Your task to perform on an android device: check storage Image 0: 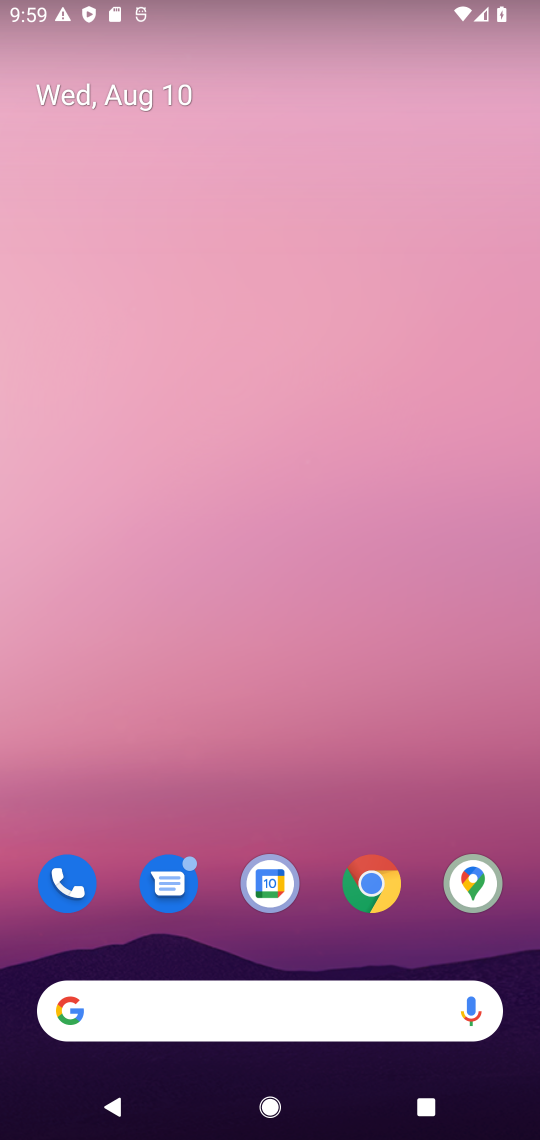
Step 0: drag from (261, 981) to (200, 15)
Your task to perform on an android device: check storage Image 1: 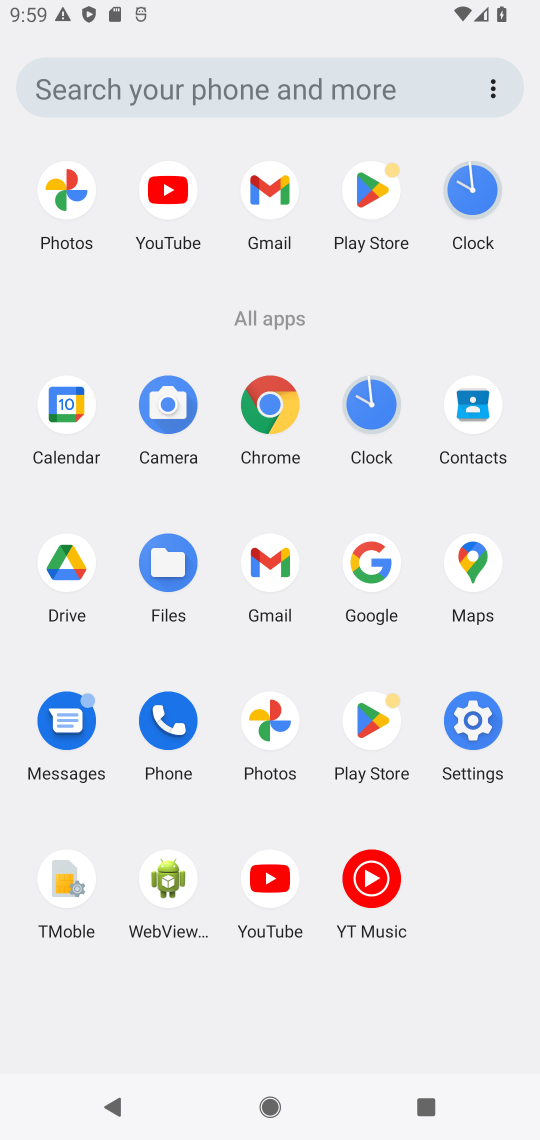
Step 1: click (489, 725)
Your task to perform on an android device: check storage Image 2: 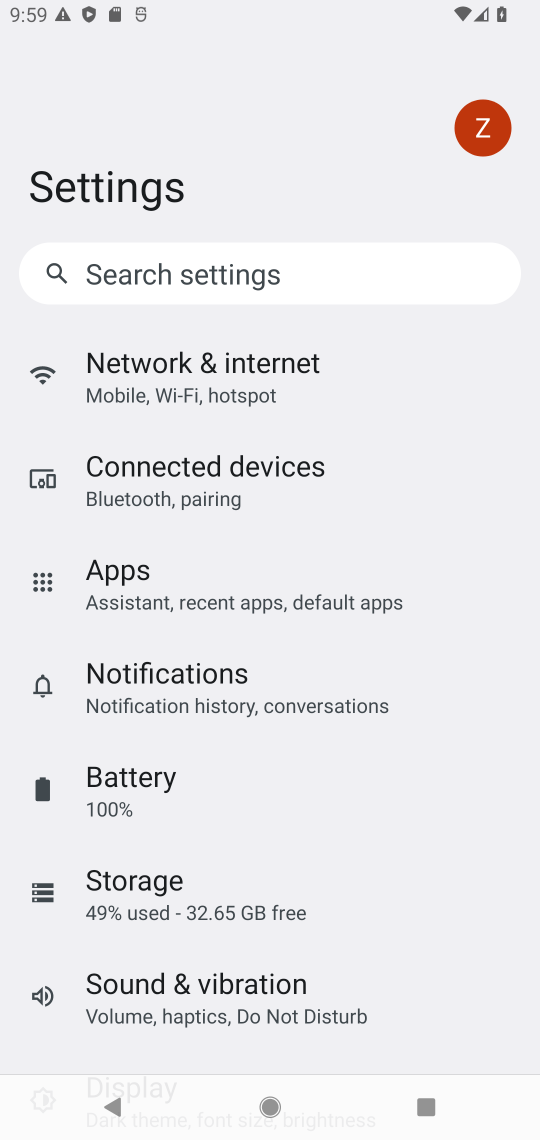
Step 2: click (113, 896)
Your task to perform on an android device: check storage Image 3: 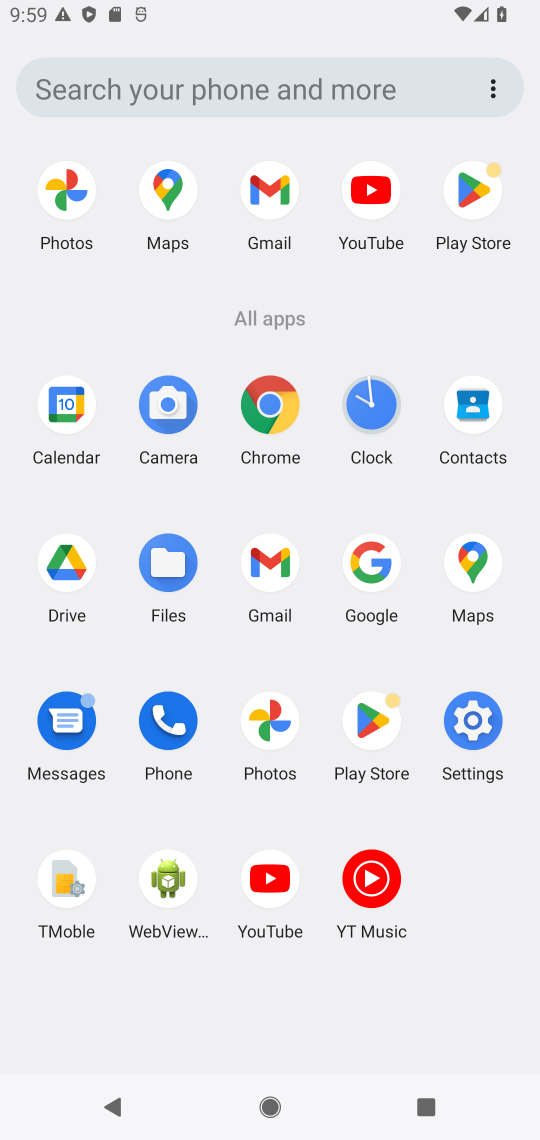
Step 3: click (470, 752)
Your task to perform on an android device: check storage Image 4: 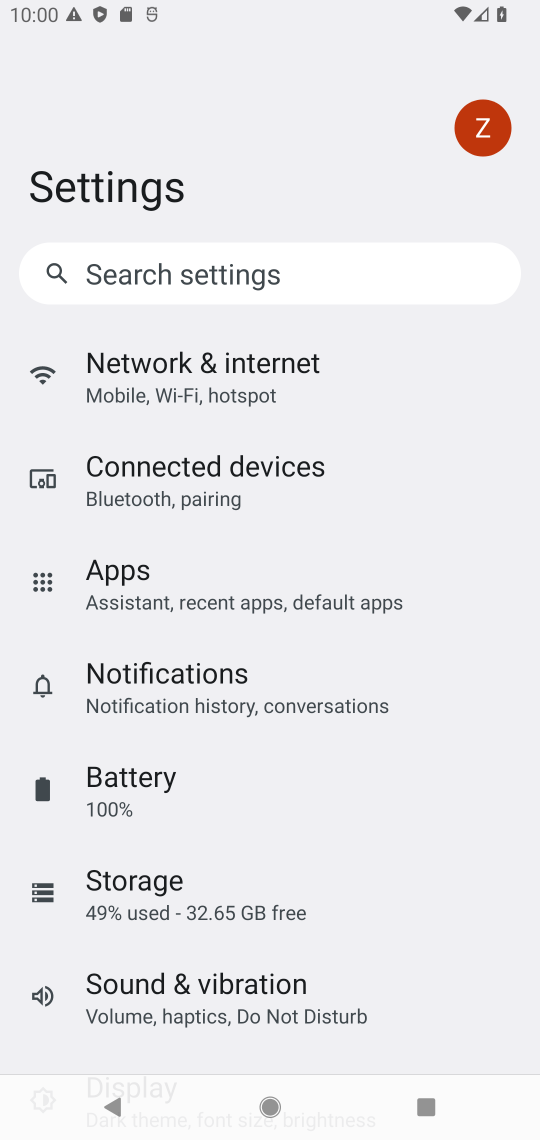
Step 4: click (296, 863)
Your task to perform on an android device: check storage Image 5: 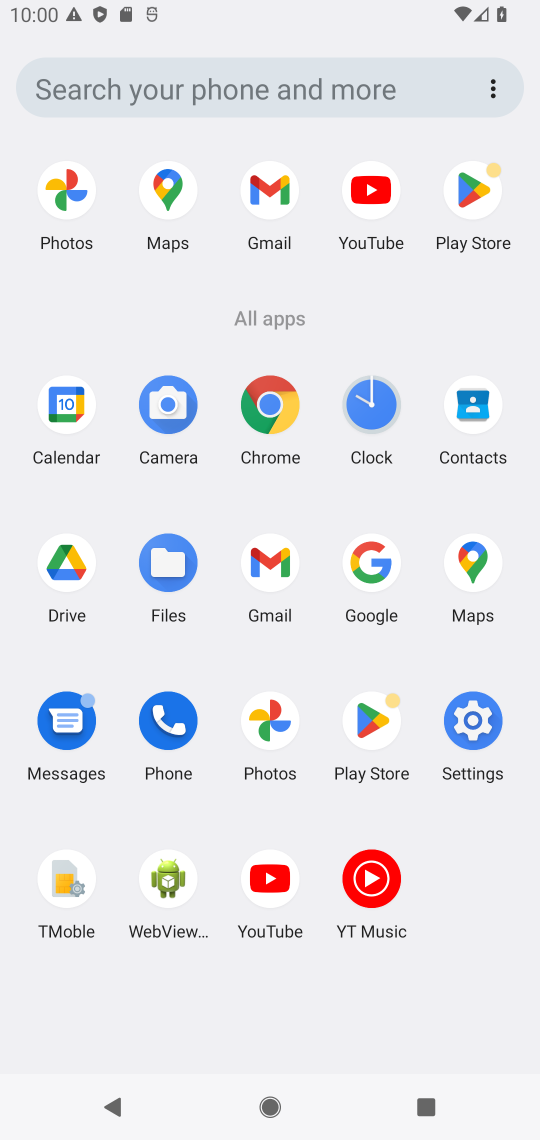
Step 5: click (486, 729)
Your task to perform on an android device: check storage Image 6: 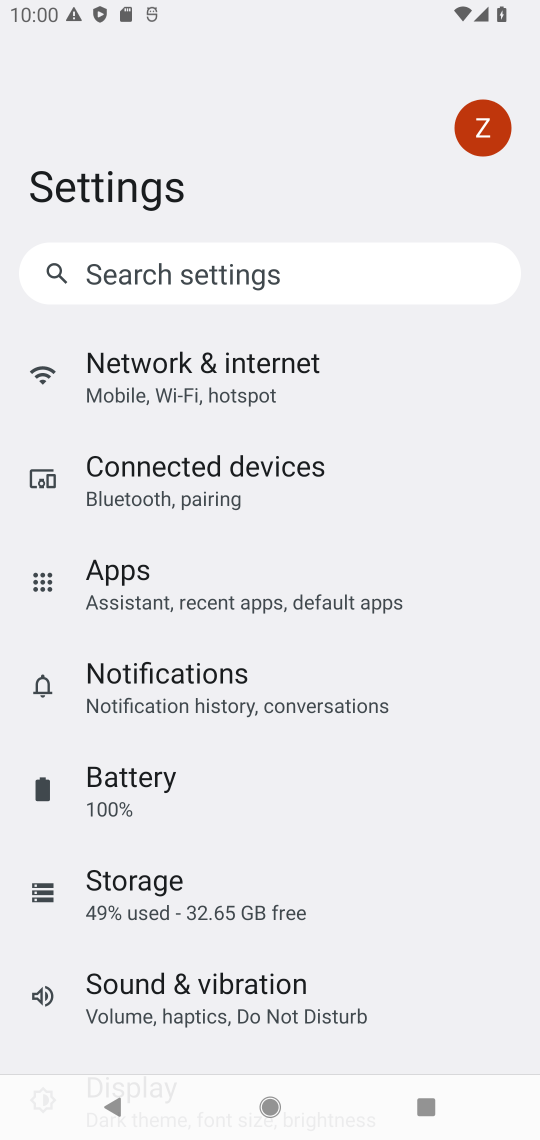
Step 6: click (137, 888)
Your task to perform on an android device: check storage Image 7: 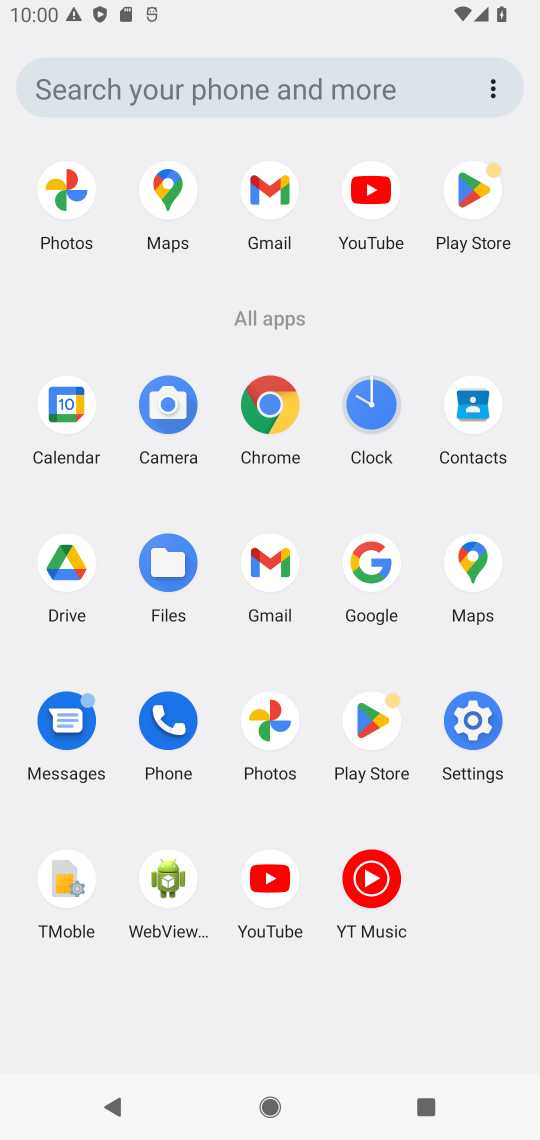
Step 7: task complete